Your task to perform on an android device: Open Maps and search for coffee Image 0: 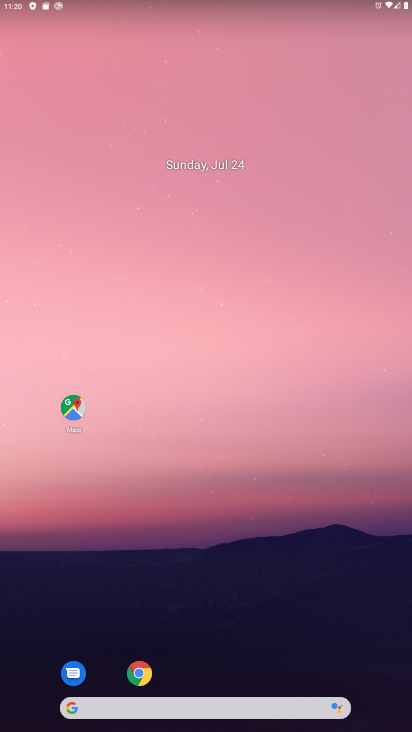
Step 0: drag from (309, 623) to (305, 69)
Your task to perform on an android device: Open Maps and search for coffee Image 1: 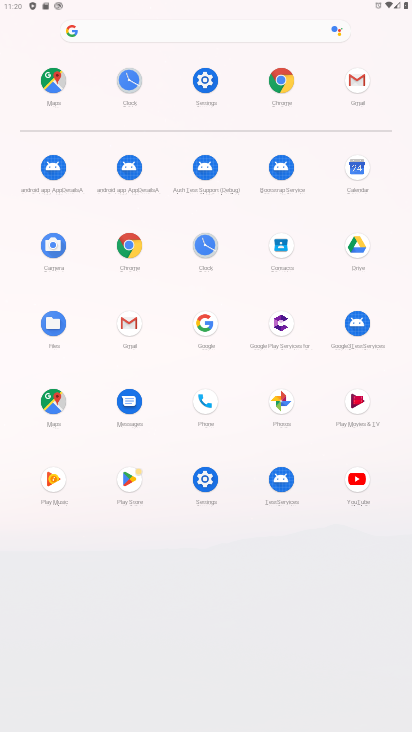
Step 1: click (52, 404)
Your task to perform on an android device: Open Maps and search for coffee Image 2: 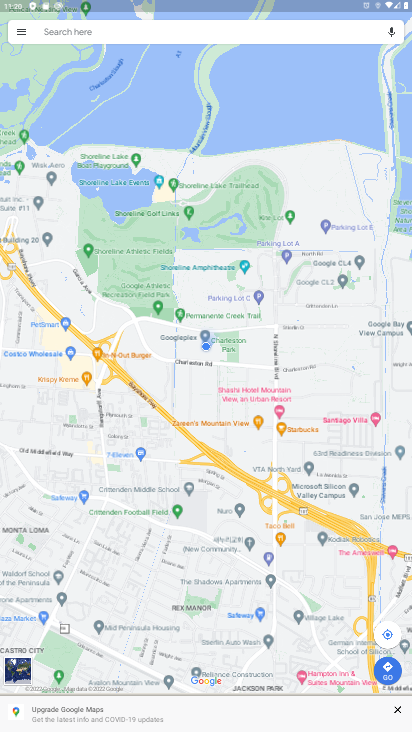
Step 2: click (236, 25)
Your task to perform on an android device: Open Maps and search for coffee Image 3: 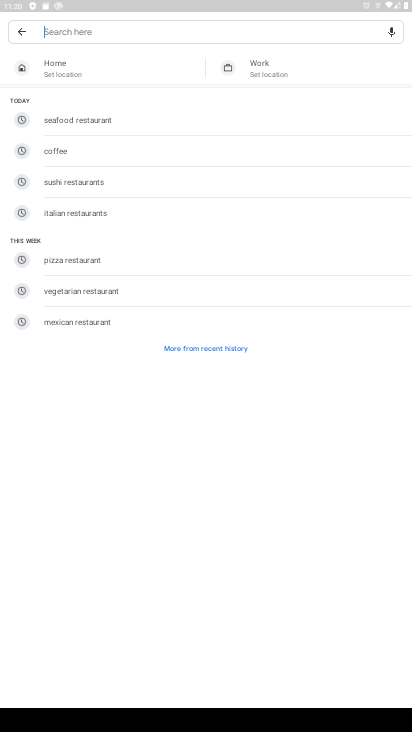
Step 3: click (89, 148)
Your task to perform on an android device: Open Maps and search for coffee Image 4: 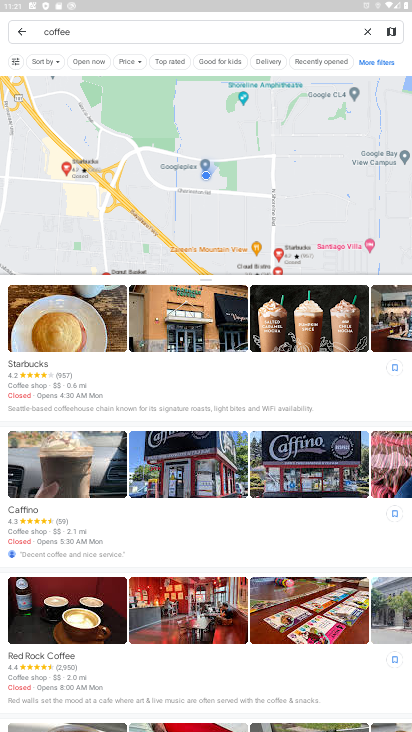
Step 4: task complete